Your task to perform on an android device: move an email to a new category in the gmail app Image 0: 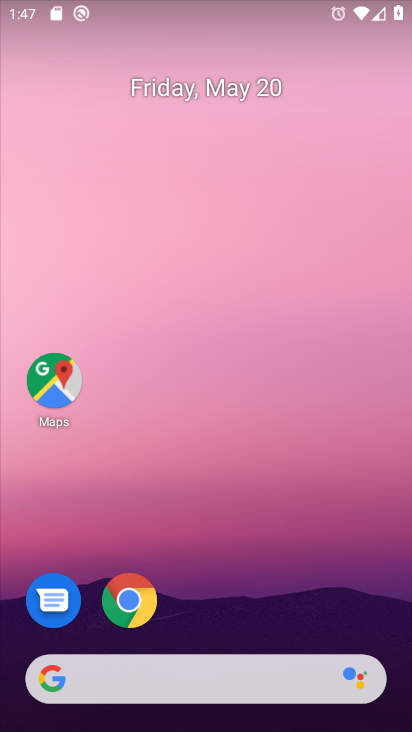
Step 0: drag from (206, 637) to (312, 1)
Your task to perform on an android device: move an email to a new category in the gmail app Image 1: 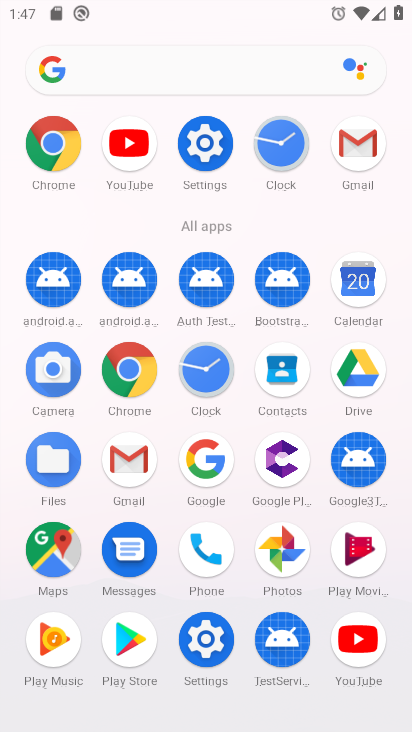
Step 1: click (140, 466)
Your task to perform on an android device: move an email to a new category in the gmail app Image 2: 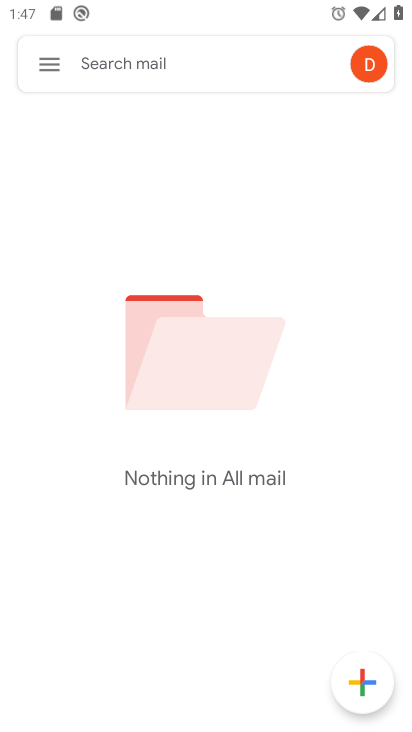
Step 2: click (38, 65)
Your task to perform on an android device: move an email to a new category in the gmail app Image 3: 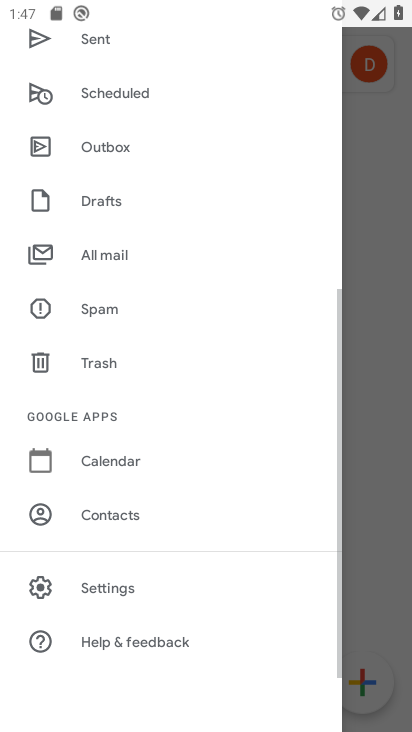
Step 3: click (115, 250)
Your task to perform on an android device: move an email to a new category in the gmail app Image 4: 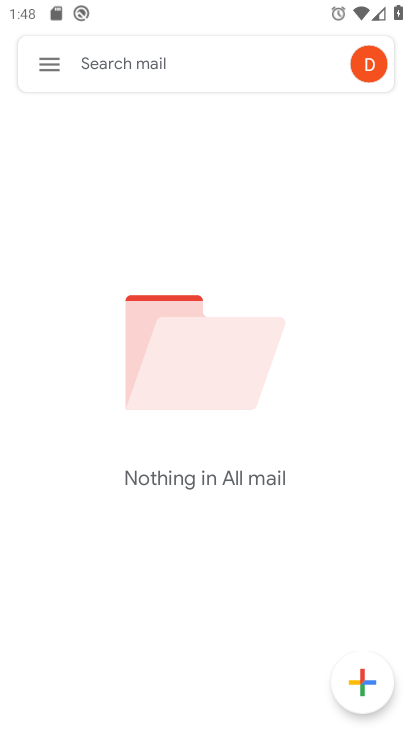
Step 4: task complete